Your task to perform on an android device: Open calendar and show me the fourth week of next month Image 0: 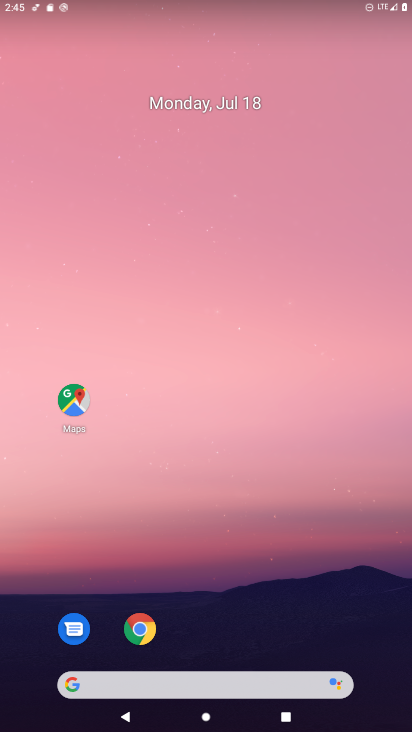
Step 0: drag from (210, 658) to (223, 152)
Your task to perform on an android device: Open calendar and show me the fourth week of next month Image 1: 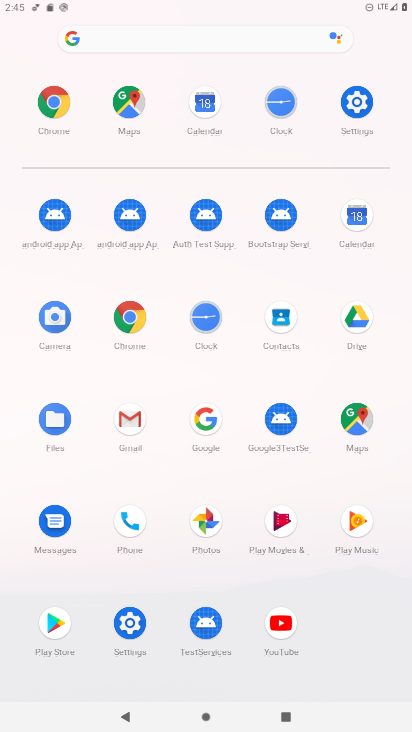
Step 1: click (211, 101)
Your task to perform on an android device: Open calendar and show me the fourth week of next month Image 2: 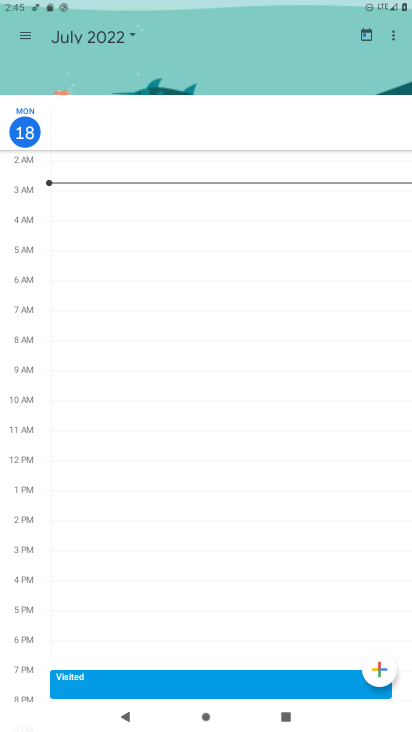
Step 2: click (136, 35)
Your task to perform on an android device: Open calendar and show me the fourth week of next month Image 3: 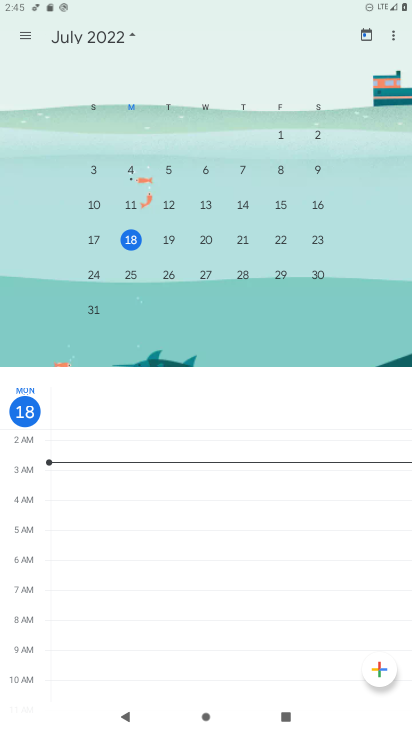
Step 3: drag from (372, 240) to (20, 206)
Your task to perform on an android device: Open calendar and show me the fourth week of next month Image 4: 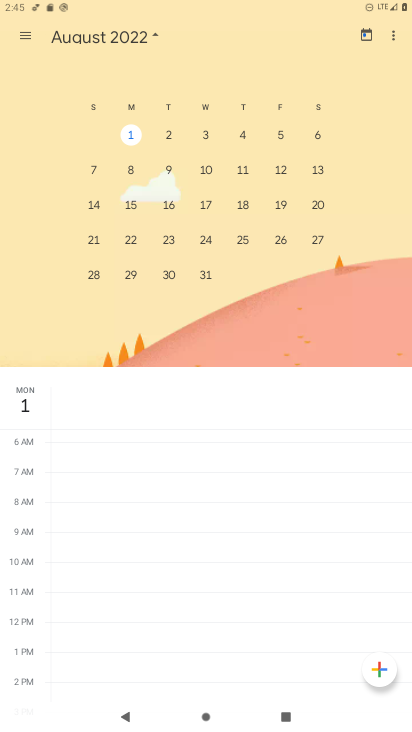
Step 4: click (98, 233)
Your task to perform on an android device: Open calendar and show me the fourth week of next month Image 5: 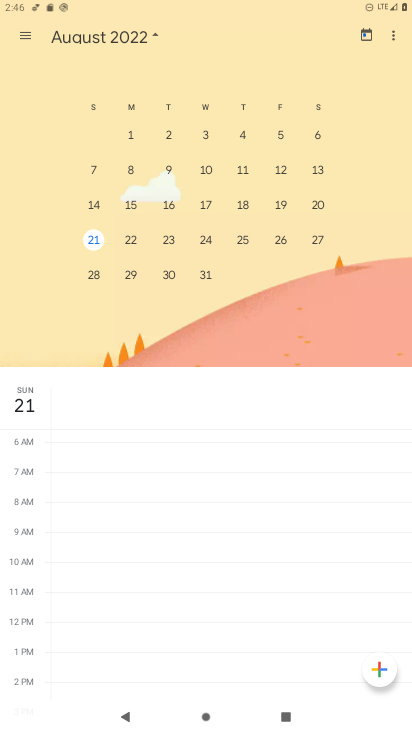
Step 5: task complete